Your task to perform on an android device: Check the settings for the Twitter app Image 0: 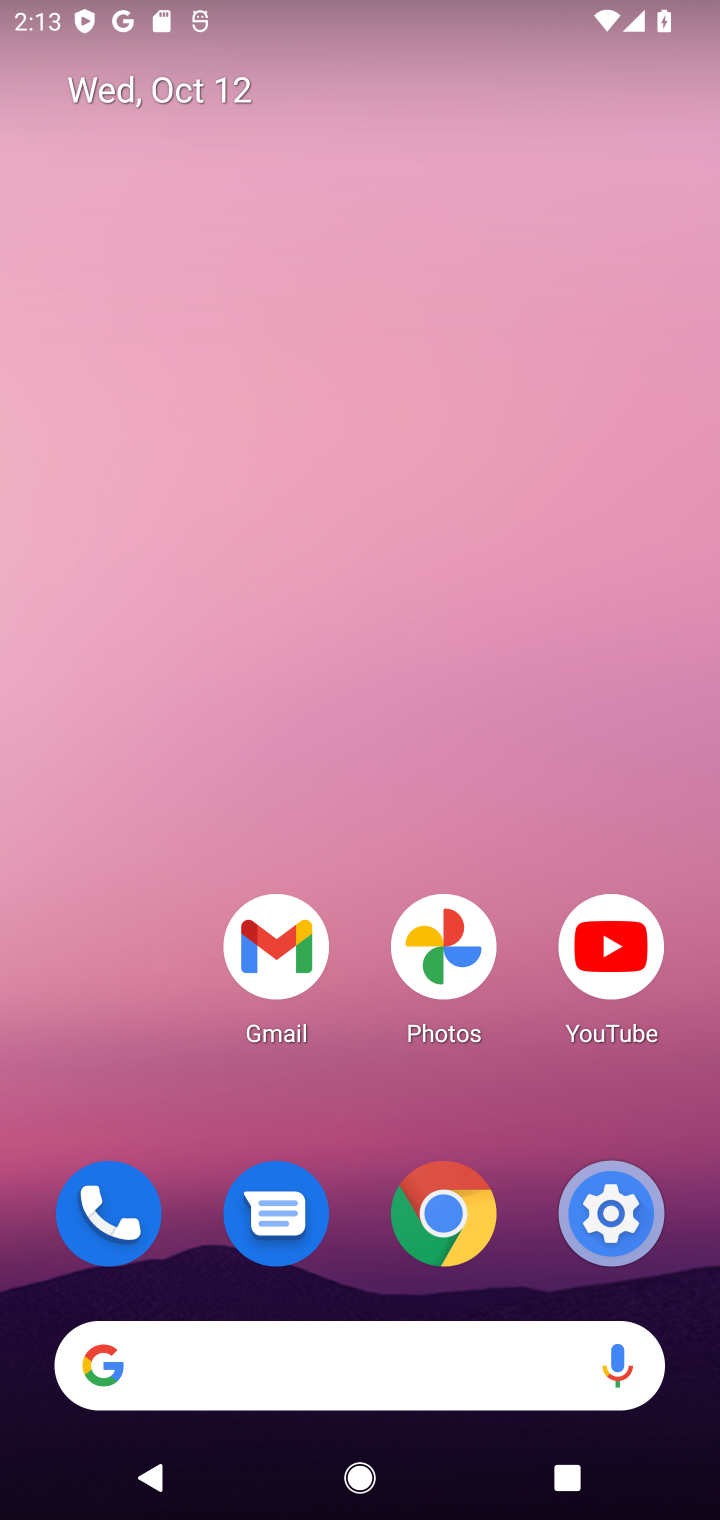
Step 0: drag from (339, 1295) to (426, 113)
Your task to perform on an android device: Check the settings for the Twitter app Image 1: 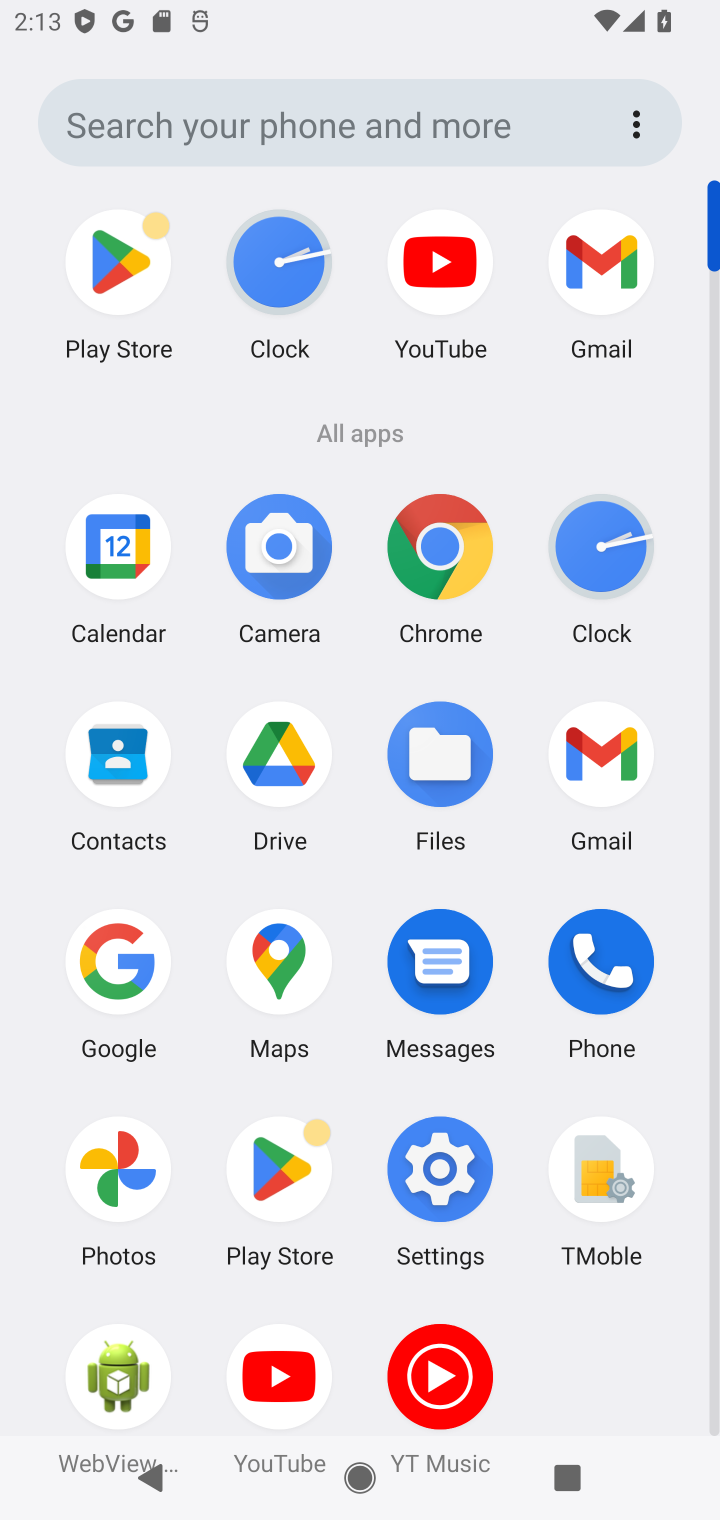
Step 1: click (290, 1176)
Your task to perform on an android device: Check the settings for the Twitter app Image 2: 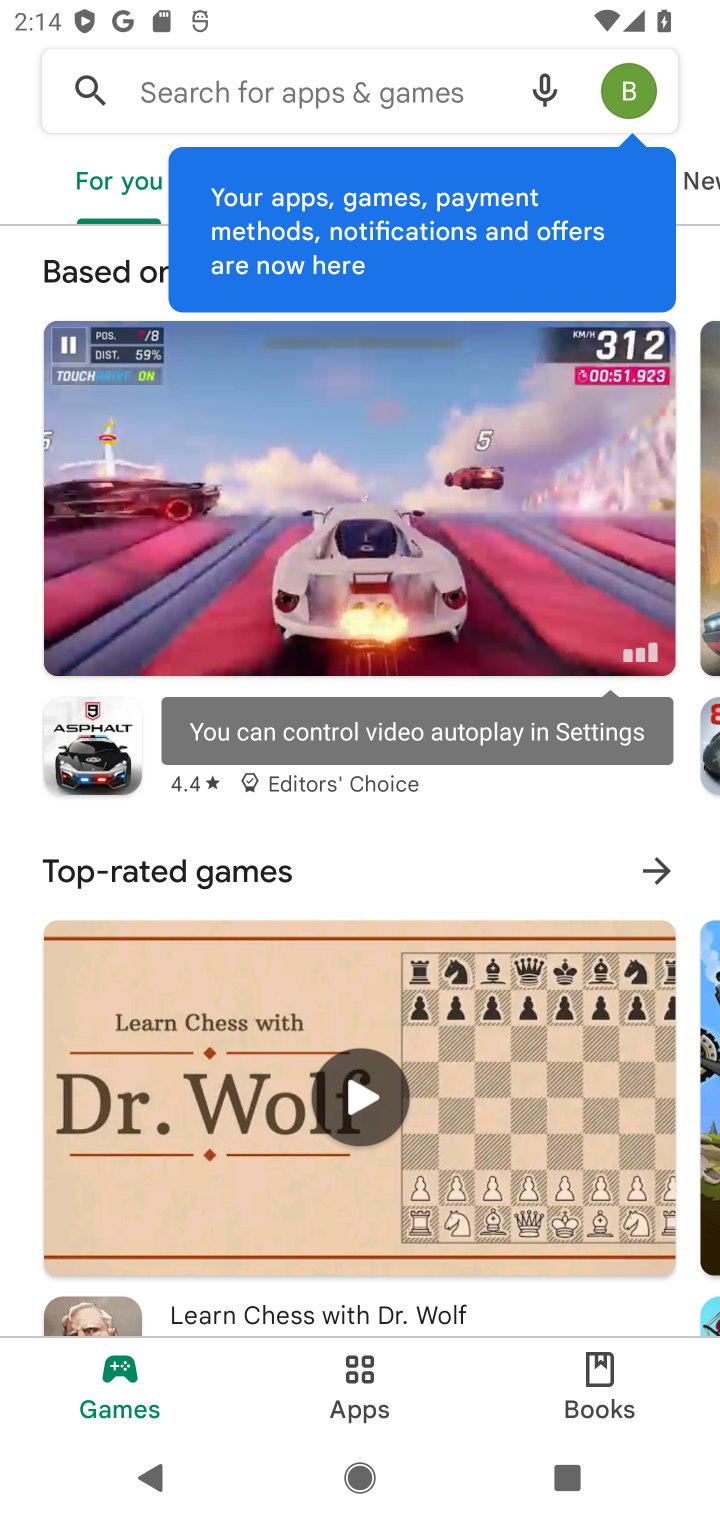
Step 2: task complete